Your task to perform on an android device: Open Google Maps and go to "Timeline" Image 0: 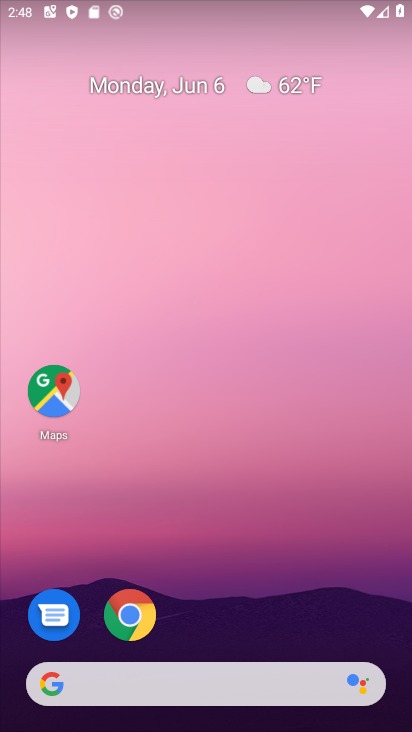
Step 0: drag from (271, 597) to (409, 596)
Your task to perform on an android device: Open Google Maps and go to "Timeline" Image 1: 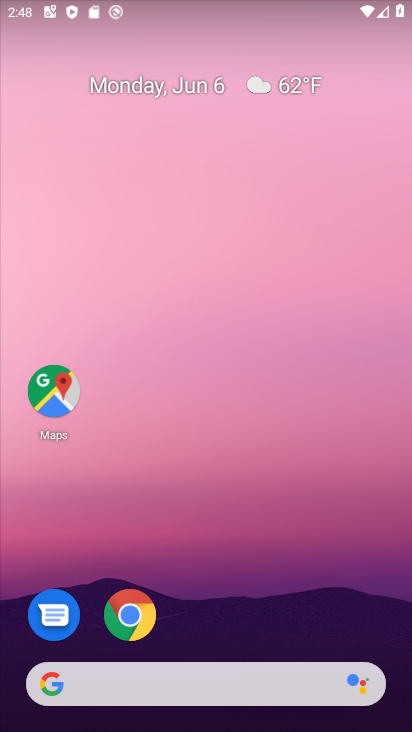
Step 1: click (127, 363)
Your task to perform on an android device: Open Google Maps and go to "Timeline" Image 2: 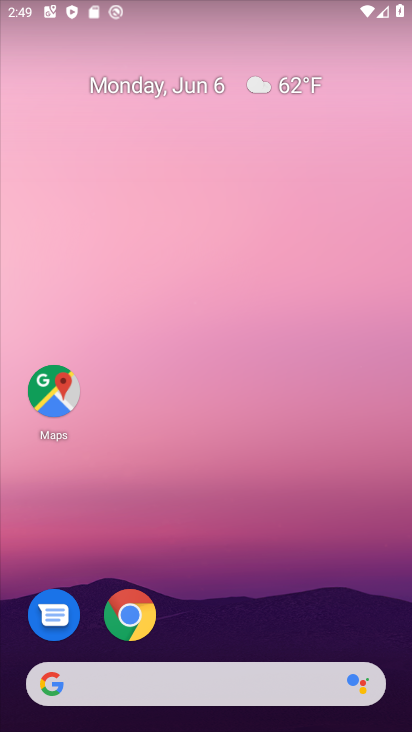
Step 2: drag from (175, 682) to (184, 25)
Your task to perform on an android device: Open Google Maps and go to "Timeline" Image 3: 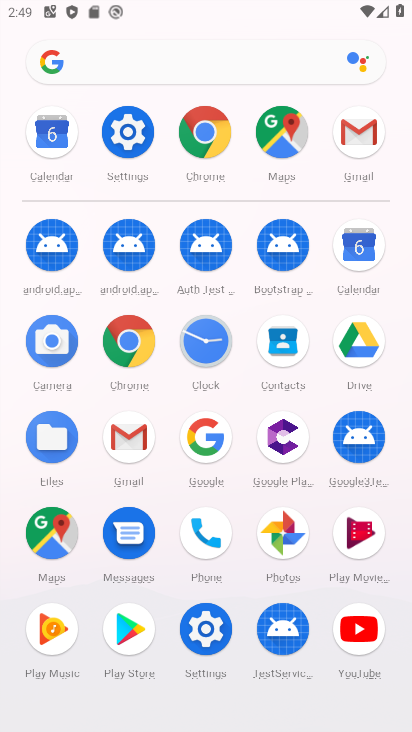
Step 3: click (47, 530)
Your task to perform on an android device: Open Google Maps and go to "Timeline" Image 4: 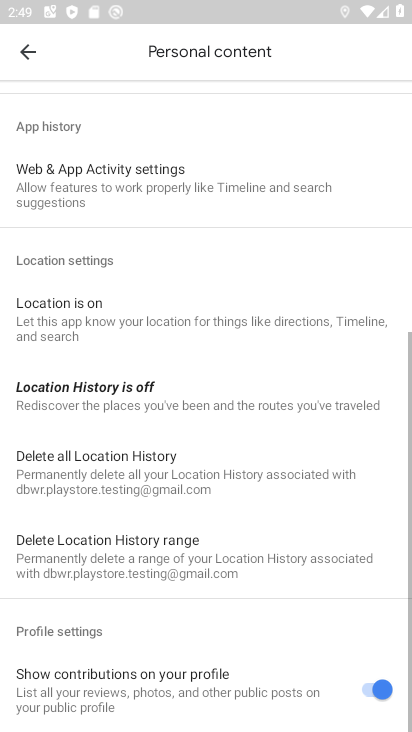
Step 4: press back button
Your task to perform on an android device: Open Google Maps and go to "Timeline" Image 5: 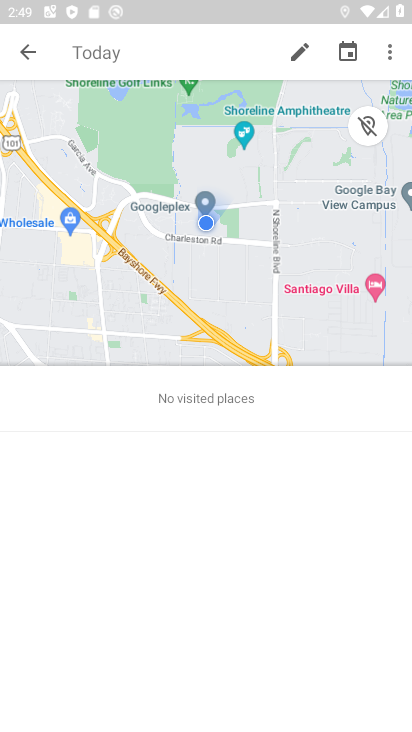
Step 5: click (402, 54)
Your task to perform on an android device: Open Google Maps and go to "Timeline" Image 6: 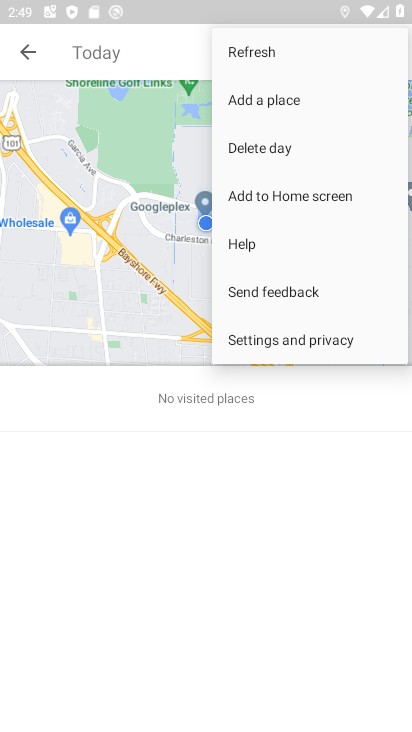
Step 6: click (123, 439)
Your task to perform on an android device: Open Google Maps and go to "Timeline" Image 7: 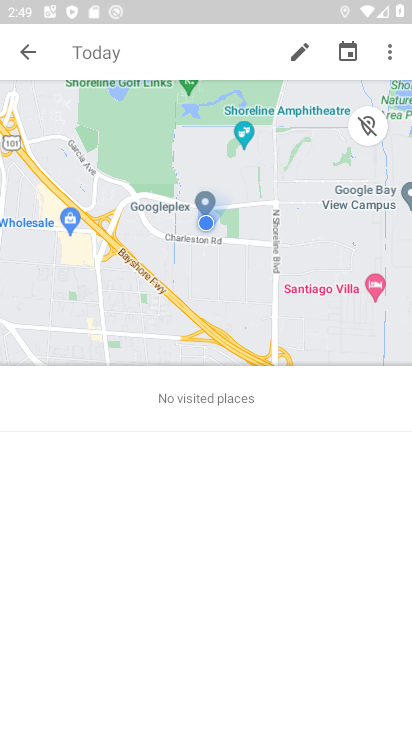
Step 7: task complete